Your task to perform on an android device: add a label to a message in the gmail app Image 0: 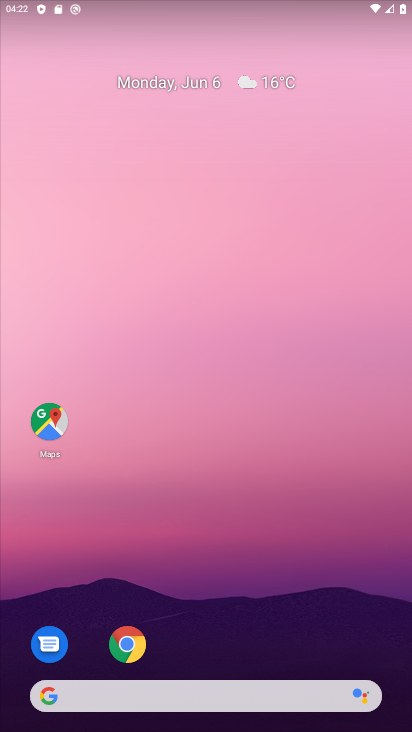
Step 0: drag from (385, 668) to (305, 53)
Your task to perform on an android device: add a label to a message in the gmail app Image 1: 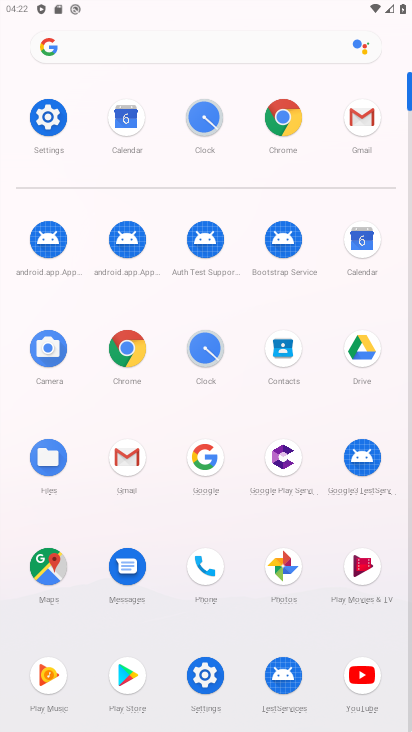
Step 1: click (126, 462)
Your task to perform on an android device: add a label to a message in the gmail app Image 2: 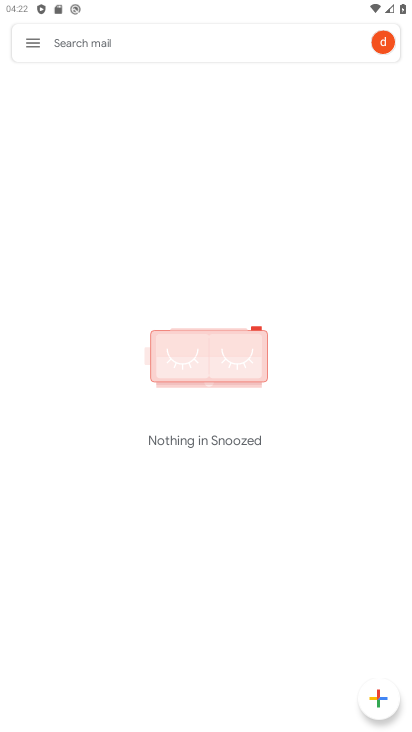
Step 2: click (27, 48)
Your task to perform on an android device: add a label to a message in the gmail app Image 3: 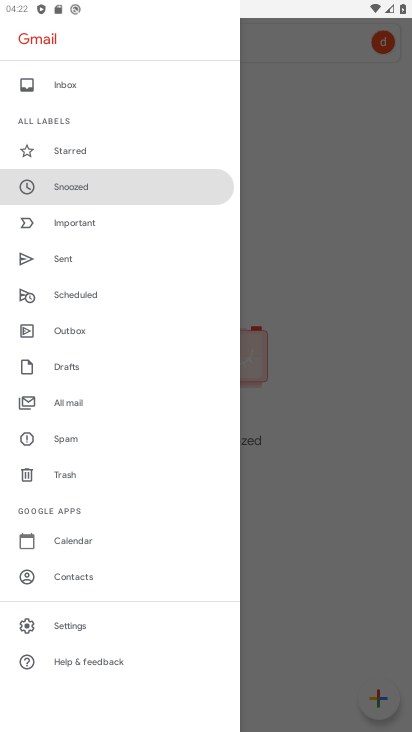
Step 3: click (62, 83)
Your task to perform on an android device: add a label to a message in the gmail app Image 4: 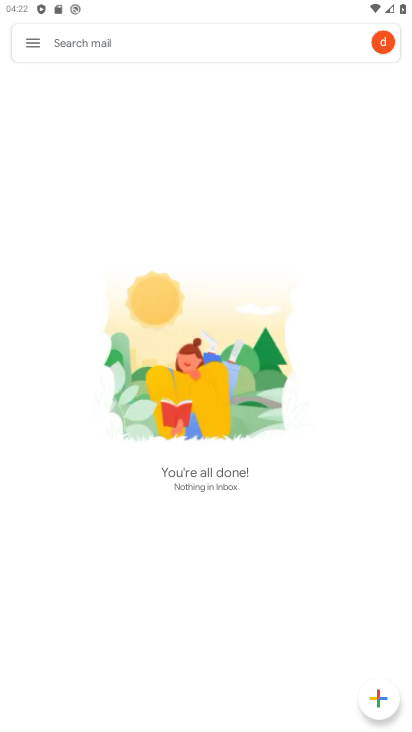
Step 4: task complete